Your task to perform on an android device: open app "Google Translate" (install if not already installed) Image 0: 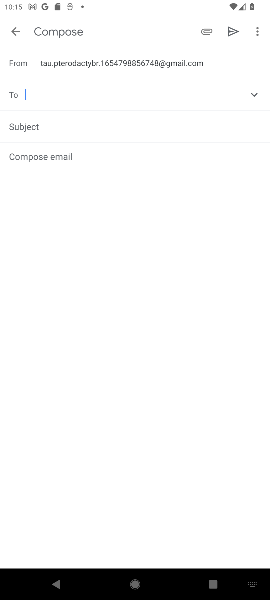
Step 0: press home button
Your task to perform on an android device: open app "Google Translate" (install if not already installed) Image 1: 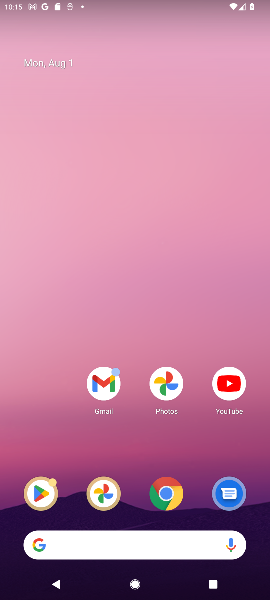
Step 1: click (45, 491)
Your task to perform on an android device: open app "Google Translate" (install if not already installed) Image 2: 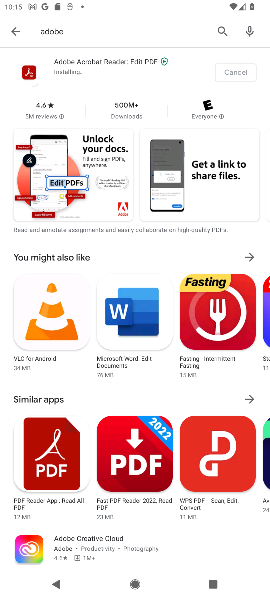
Step 2: click (216, 31)
Your task to perform on an android device: open app "Google Translate" (install if not already installed) Image 3: 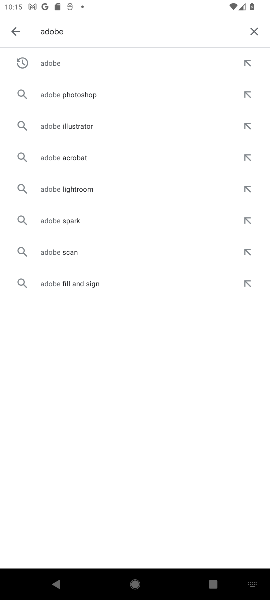
Step 3: click (251, 31)
Your task to perform on an android device: open app "Google Translate" (install if not already installed) Image 4: 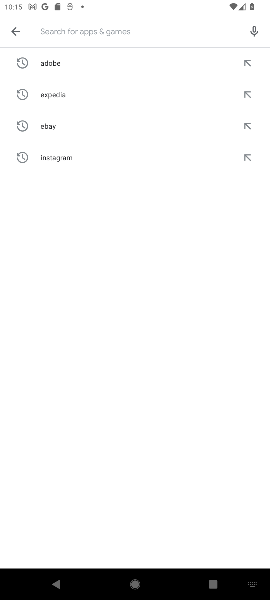
Step 4: type "google translate"
Your task to perform on an android device: open app "Google Translate" (install if not already installed) Image 5: 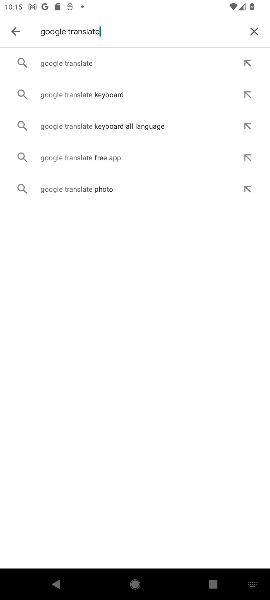
Step 5: click (172, 59)
Your task to perform on an android device: open app "Google Translate" (install if not already installed) Image 6: 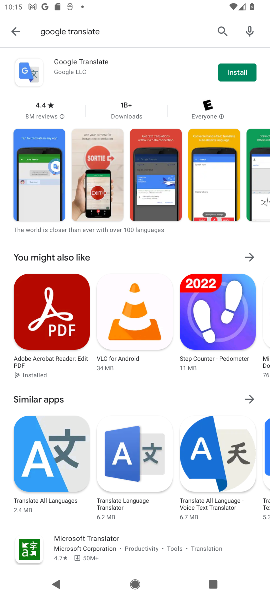
Step 6: click (223, 69)
Your task to perform on an android device: open app "Google Translate" (install if not already installed) Image 7: 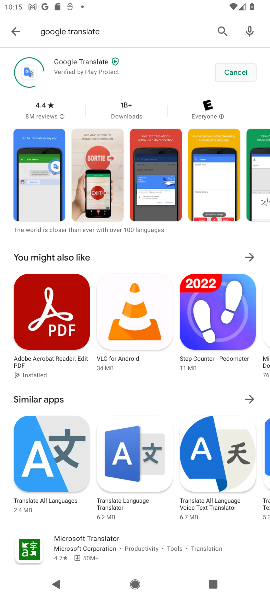
Step 7: task complete